Your task to perform on an android device: Open Amazon Image 0: 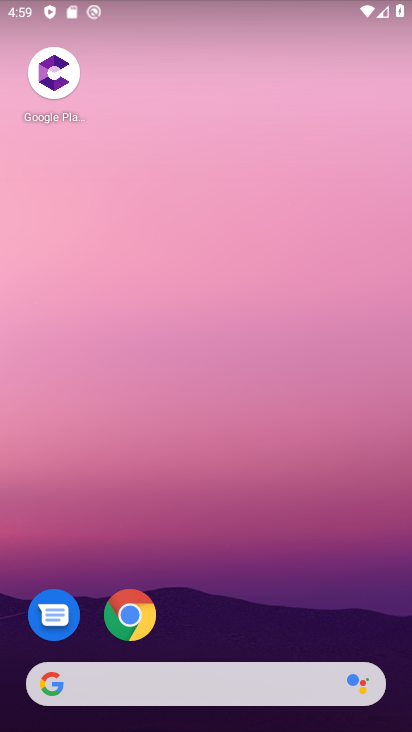
Step 0: click (133, 614)
Your task to perform on an android device: Open Amazon Image 1: 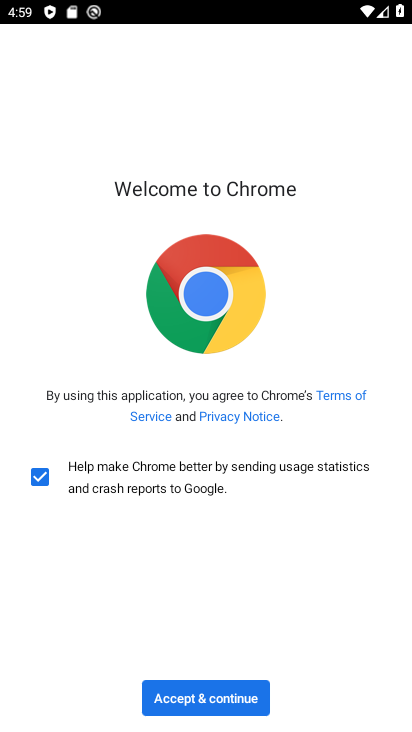
Step 1: click (223, 697)
Your task to perform on an android device: Open Amazon Image 2: 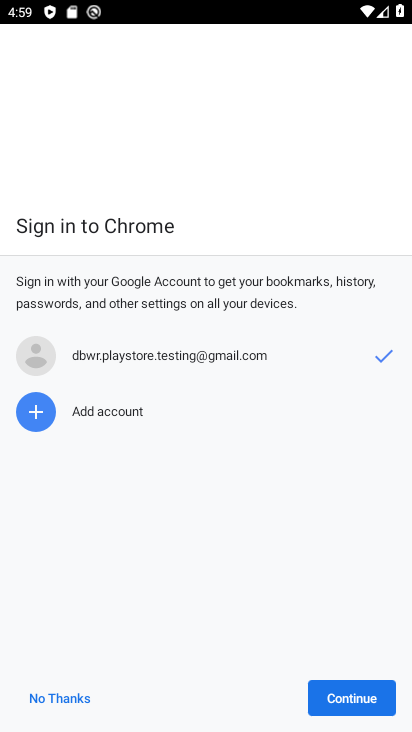
Step 2: click (345, 696)
Your task to perform on an android device: Open Amazon Image 3: 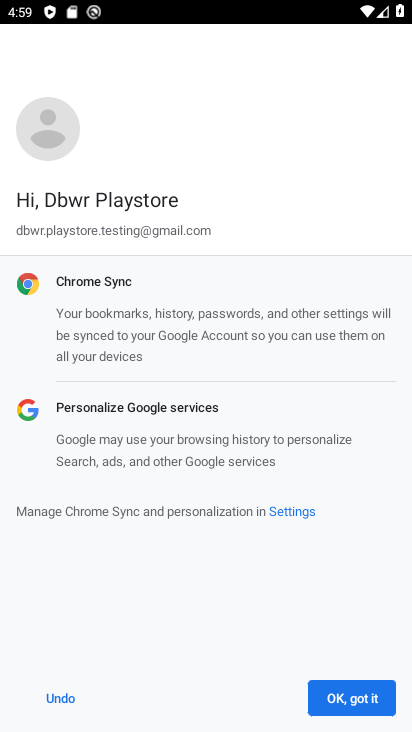
Step 3: click (345, 696)
Your task to perform on an android device: Open Amazon Image 4: 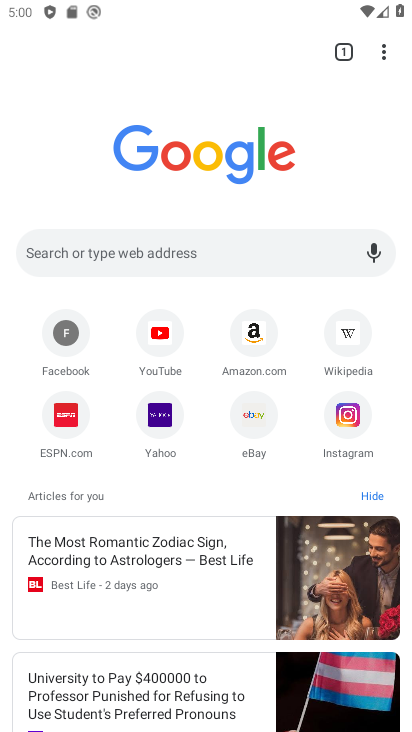
Step 4: click (250, 330)
Your task to perform on an android device: Open Amazon Image 5: 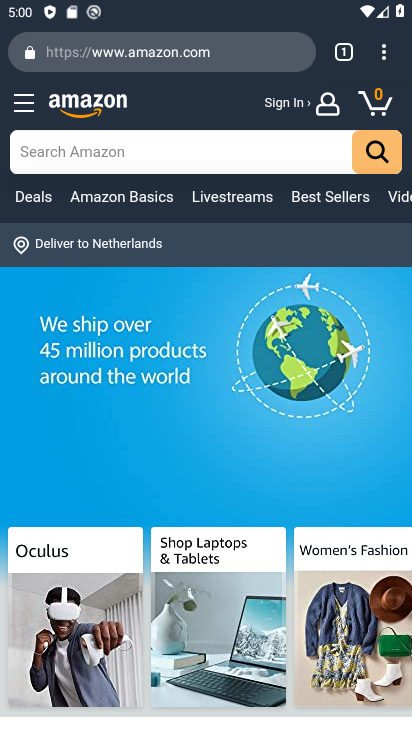
Step 5: task complete